Your task to perform on an android device: Go to Google Image 0: 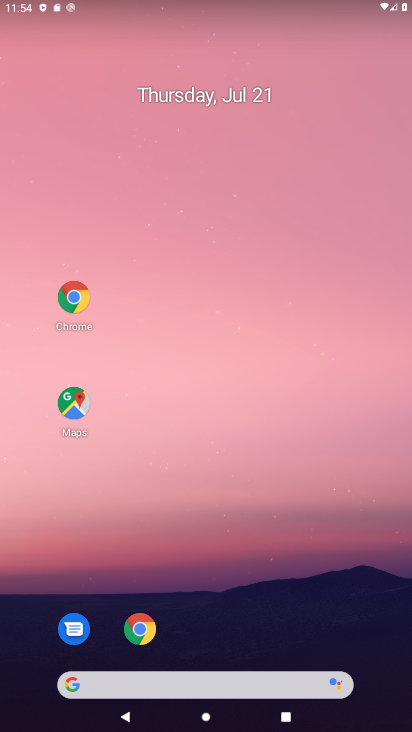
Step 0: drag from (262, 653) to (226, 119)
Your task to perform on an android device: Go to Google Image 1: 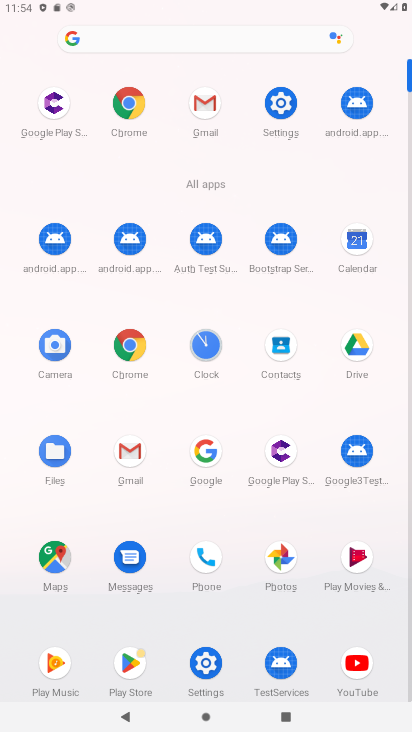
Step 1: click (202, 456)
Your task to perform on an android device: Go to Google Image 2: 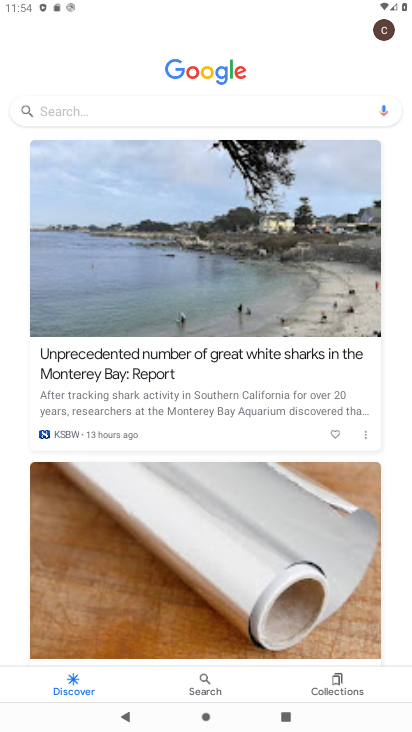
Step 2: task complete